Your task to perform on an android device: Open Chrome and go to settings Image 0: 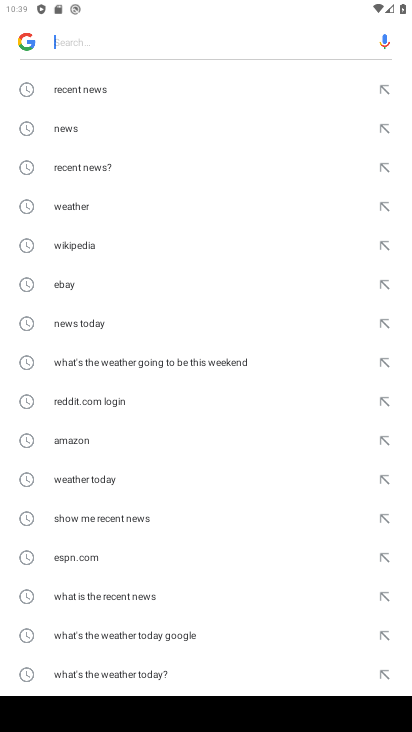
Step 0: press home button
Your task to perform on an android device: Open Chrome and go to settings Image 1: 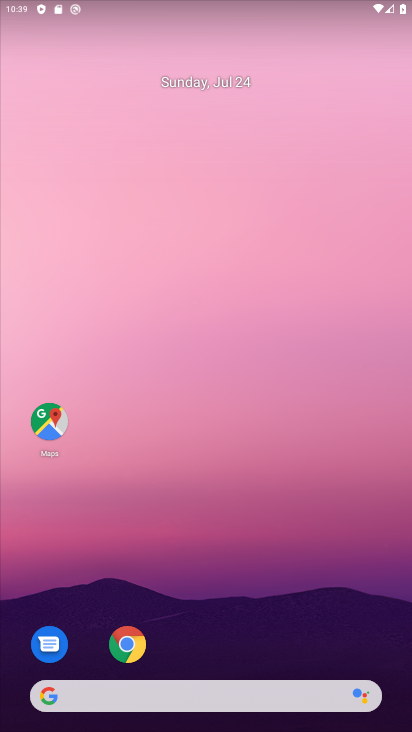
Step 1: click (128, 648)
Your task to perform on an android device: Open Chrome and go to settings Image 2: 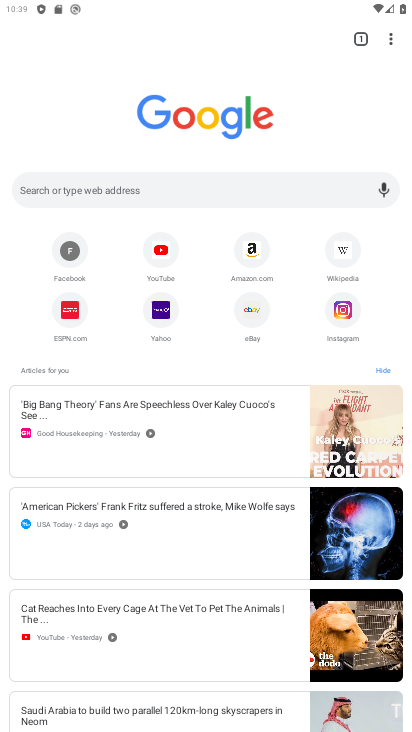
Step 2: click (392, 45)
Your task to perform on an android device: Open Chrome and go to settings Image 3: 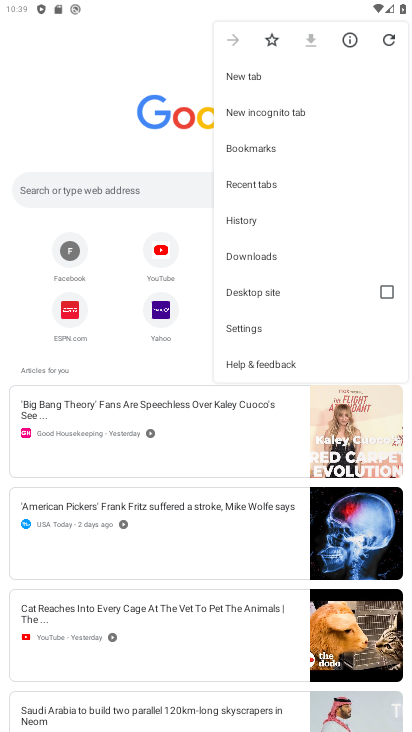
Step 3: click (241, 332)
Your task to perform on an android device: Open Chrome and go to settings Image 4: 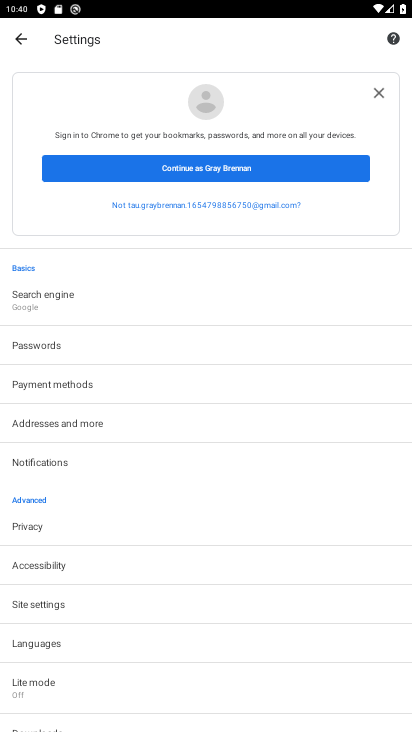
Step 4: task complete